Your task to perform on an android device: star an email in the gmail app Image 0: 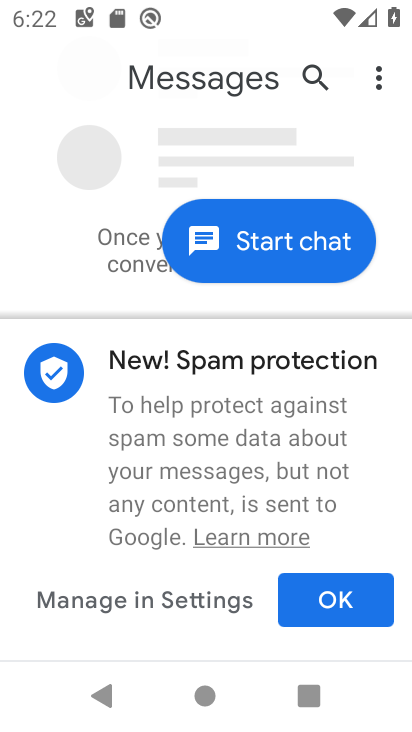
Step 0: press home button
Your task to perform on an android device: star an email in the gmail app Image 1: 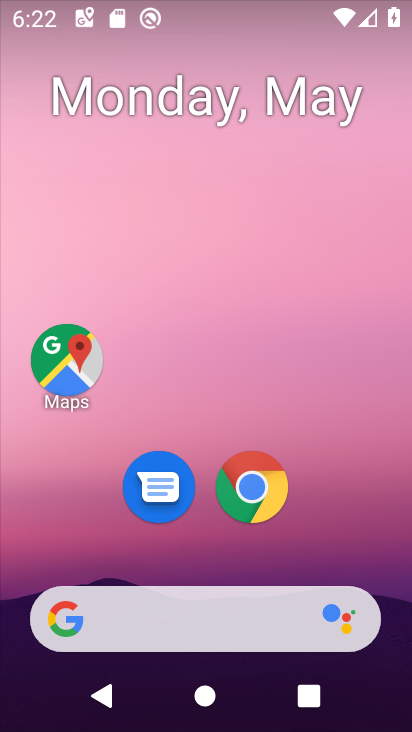
Step 1: drag from (209, 550) to (274, 39)
Your task to perform on an android device: star an email in the gmail app Image 2: 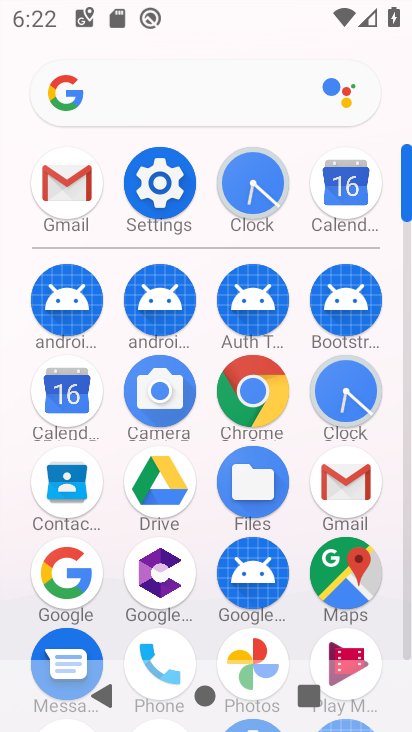
Step 2: click (61, 174)
Your task to perform on an android device: star an email in the gmail app Image 3: 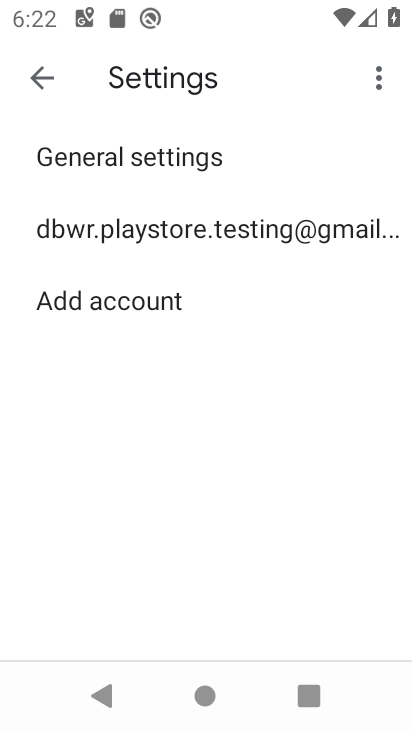
Step 3: click (45, 78)
Your task to perform on an android device: star an email in the gmail app Image 4: 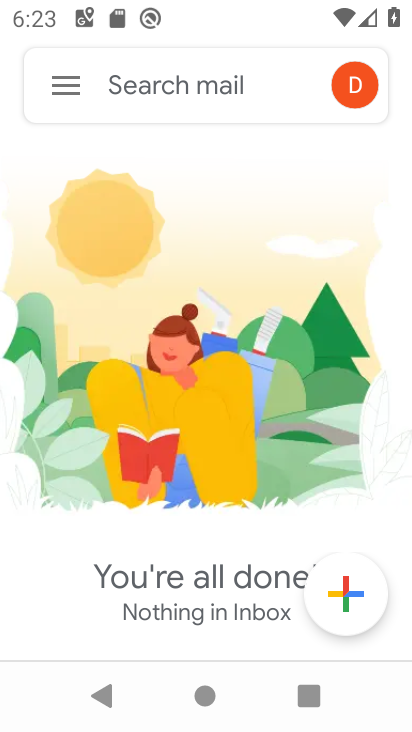
Step 4: task complete